Your task to perform on an android device: make emails show in primary in the gmail app Image 0: 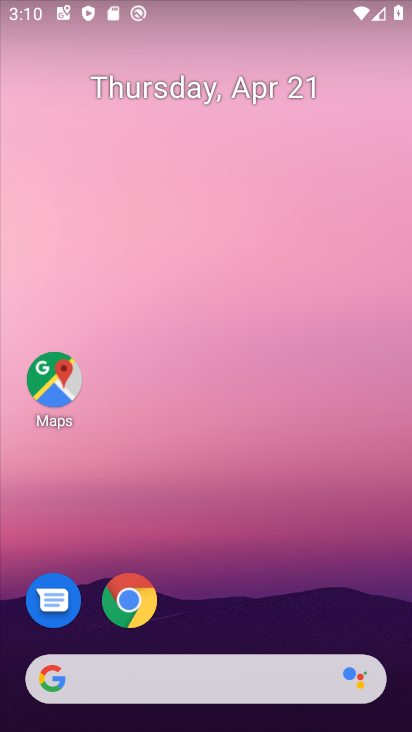
Step 0: drag from (227, 603) to (227, 67)
Your task to perform on an android device: make emails show in primary in the gmail app Image 1: 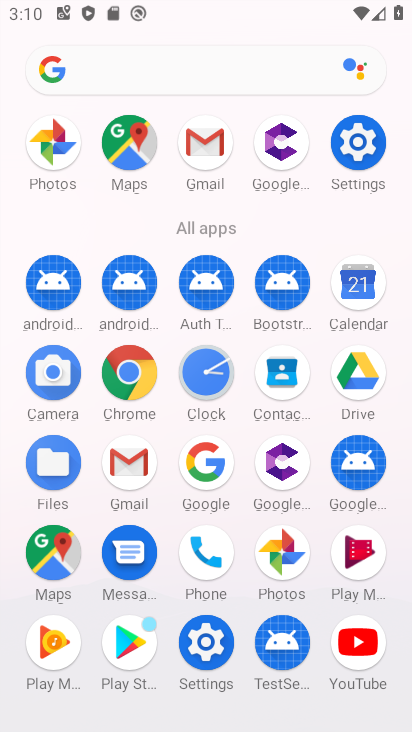
Step 1: click (202, 144)
Your task to perform on an android device: make emails show in primary in the gmail app Image 2: 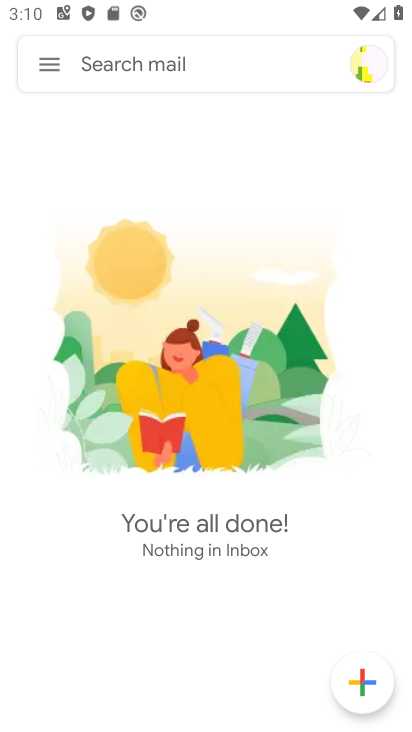
Step 2: click (47, 64)
Your task to perform on an android device: make emails show in primary in the gmail app Image 3: 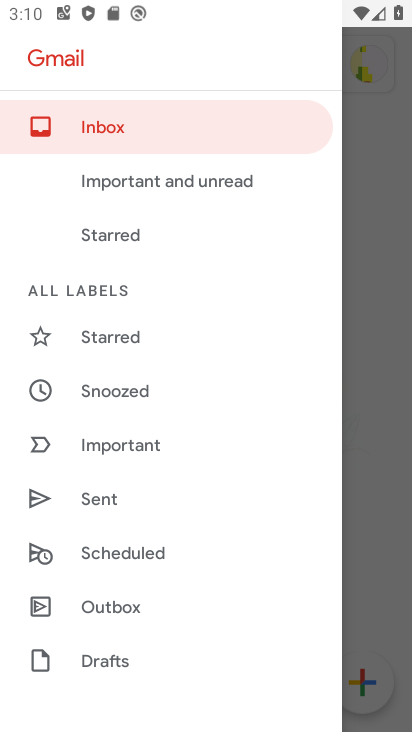
Step 3: drag from (164, 420) to (196, 331)
Your task to perform on an android device: make emails show in primary in the gmail app Image 4: 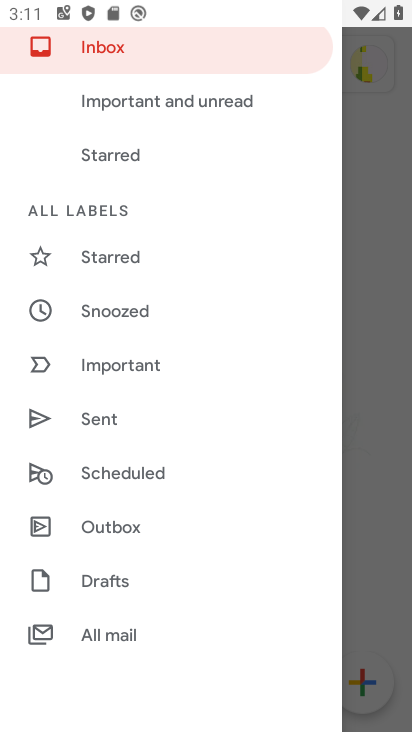
Step 4: drag from (131, 437) to (158, 357)
Your task to perform on an android device: make emails show in primary in the gmail app Image 5: 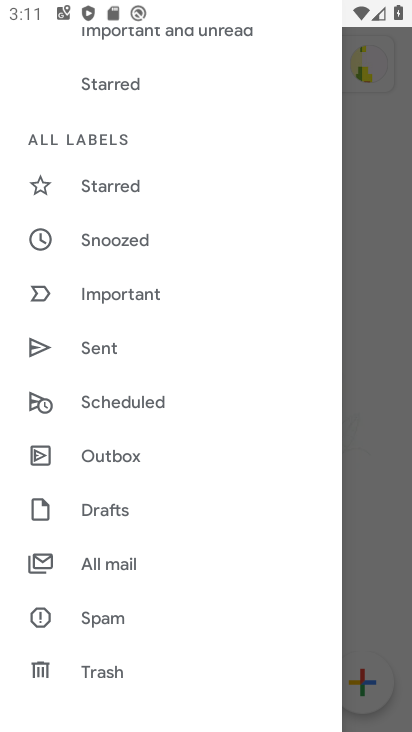
Step 5: drag from (127, 440) to (167, 374)
Your task to perform on an android device: make emails show in primary in the gmail app Image 6: 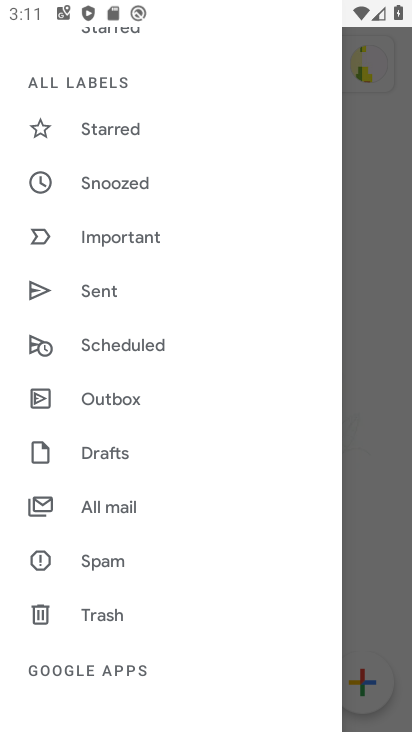
Step 6: drag from (117, 441) to (178, 360)
Your task to perform on an android device: make emails show in primary in the gmail app Image 7: 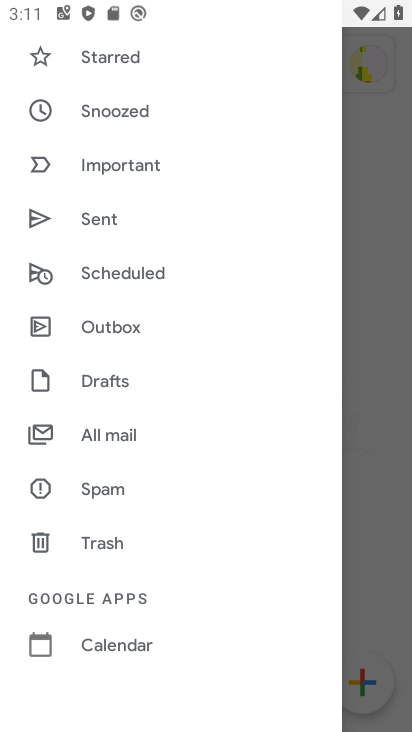
Step 7: drag from (106, 469) to (160, 396)
Your task to perform on an android device: make emails show in primary in the gmail app Image 8: 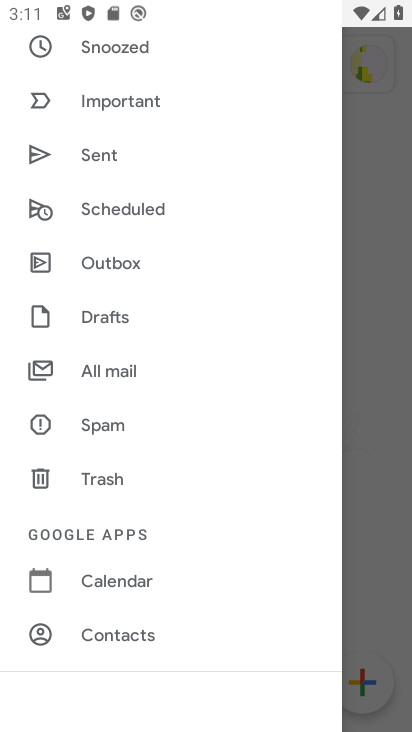
Step 8: drag from (109, 462) to (161, 385)
Your task to perform on an android device: make emails show in primary in the gmail app Image 9: 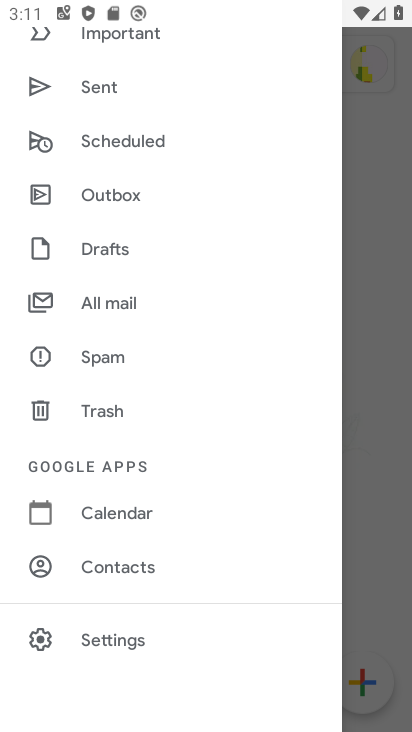
Step 9: click (111, 636)
Your task to perform on an android device: make emails show in primary in the gmail app Image 10: 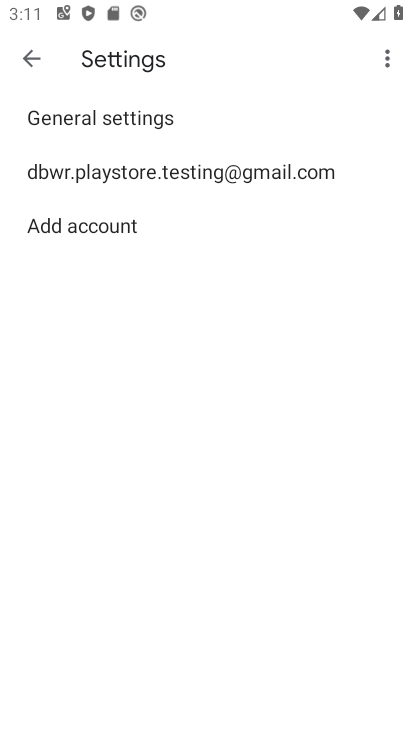
Step 10: click (223, 176)
Your task to perform on an android device: make emails show in primary in the gmail app Image 11: 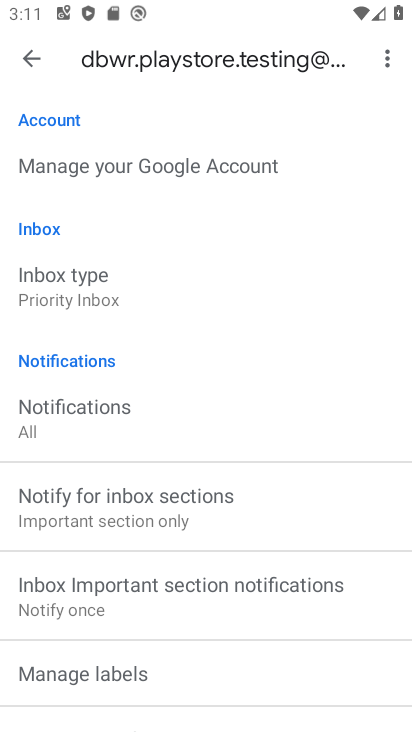
Step 11: click (93, 293)
Your task to perform on an android device: make emails show in primary in the gmail app Image 12: 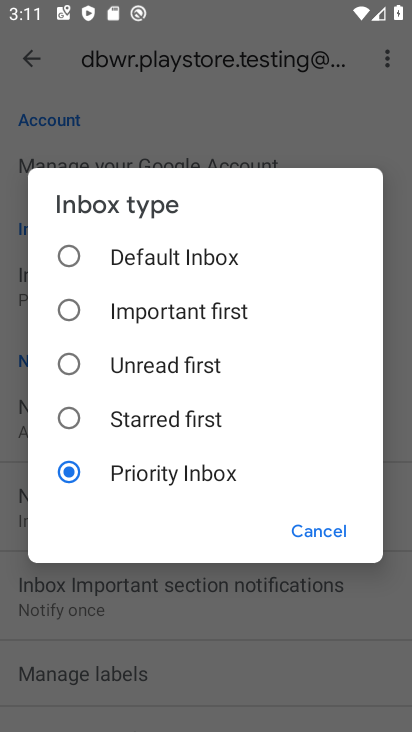
Step 12: click (65, 254)
Your task to perform on an android device: make emails show in primary in the gmail app Image 13: 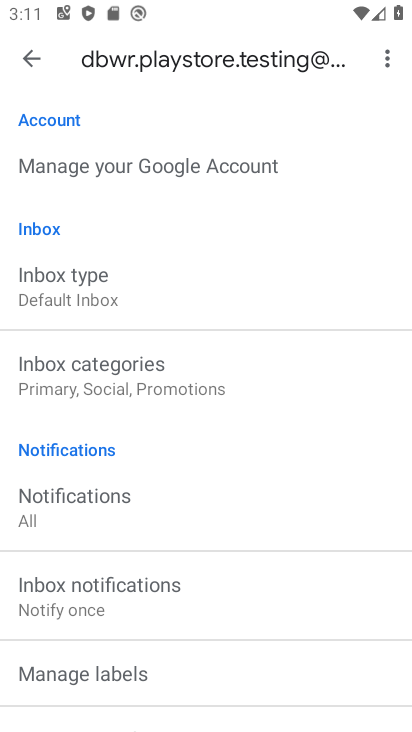
Step 13: click (118, 376)
Your task to perform on an android device: make emails show in primary in the gmail app Image 14: 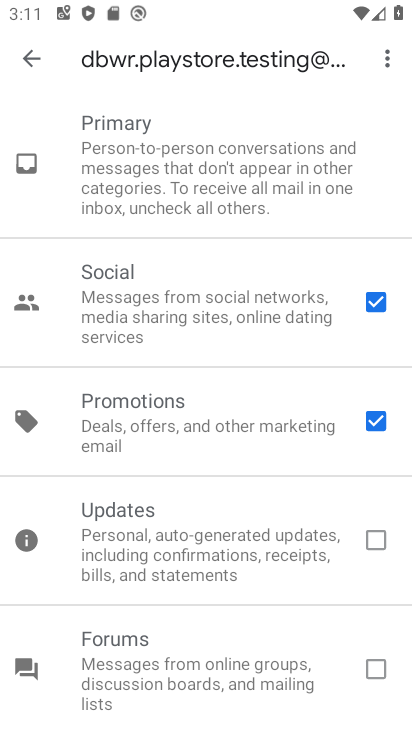
Step 14: click (374, 308)
Your task to perform on an android device: make emails show in primary in the gmail app Image 15: 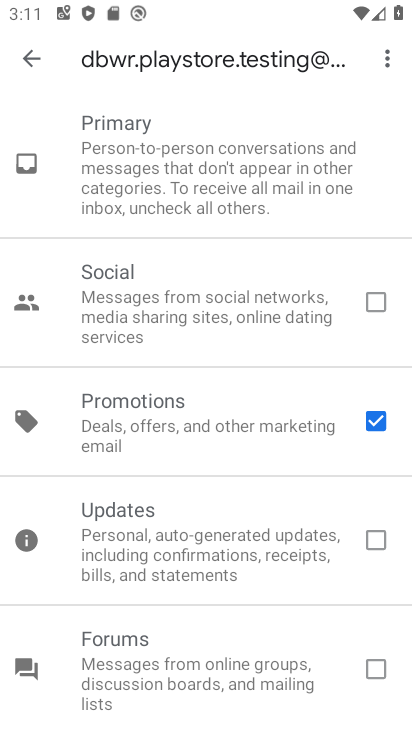
Step 15: click (373, 422)
Your task to perform on an android device: make emails show in primary in the gmail app Image 16: 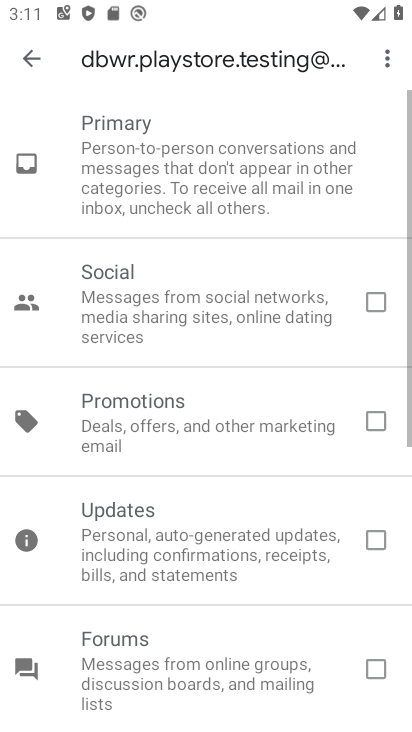
Step 16: task complete